Your task to perform on an android device: What's the weather going to be tomorrow? Image 0: 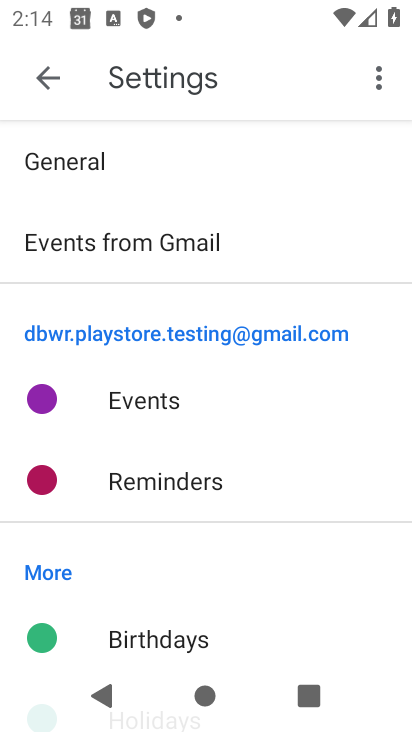
Step 0: press home button
Your task to perform on an android device: What's the weather going to be tomorrow? Image 1: 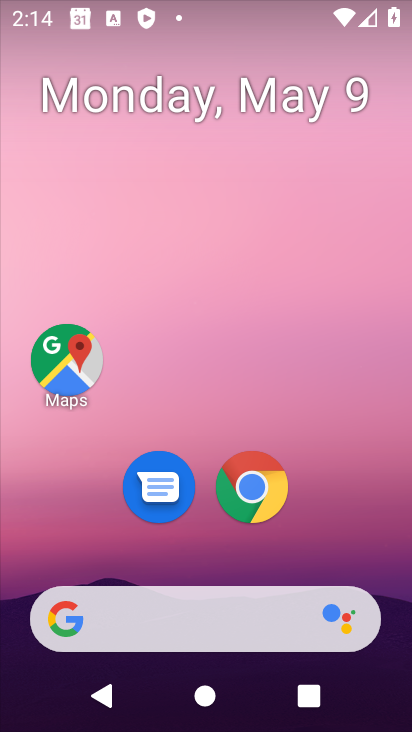
Step 1: click (236, 618)
Your task to perform on an android device: What's the weather going to be tomorrow? Image 2: 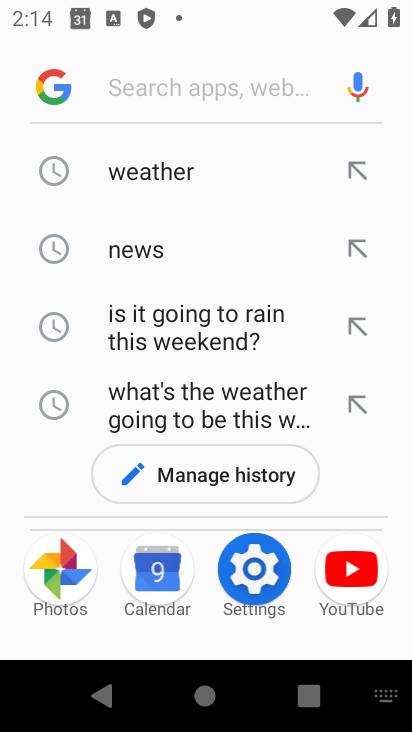
Step 2: click (57, 160)
Your task to perform on an android device: What's the weather going to be tomorrow? Image 3: 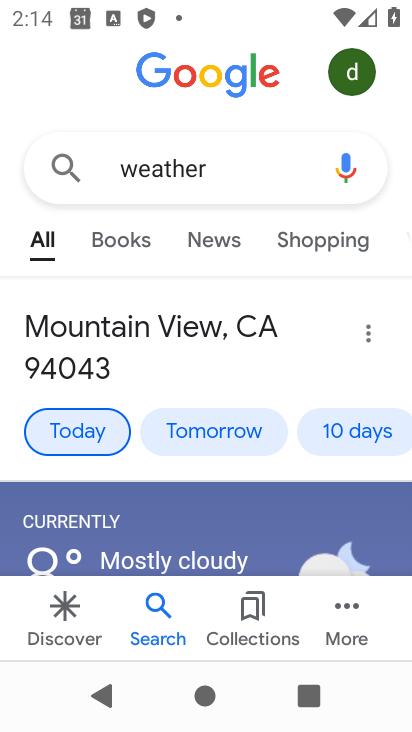
Step 3: click (203, 420)
Your task to perform on an android device: What's the weather going to be tomorrow? Image 4: 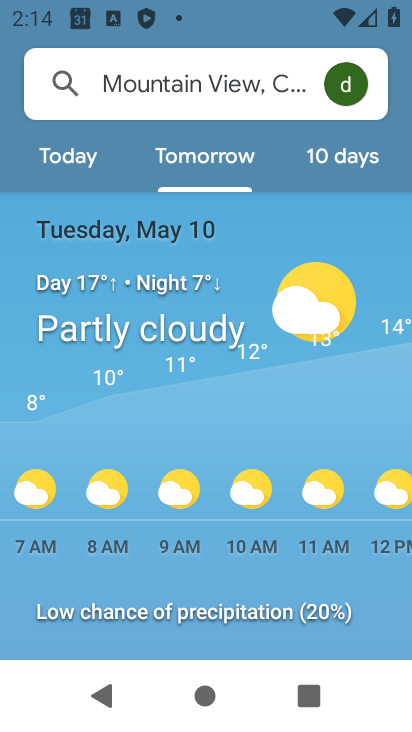
Step 4: task complete